Your task to perform on an android device: Open Google Chrome and open the bookmarks view Image 0: 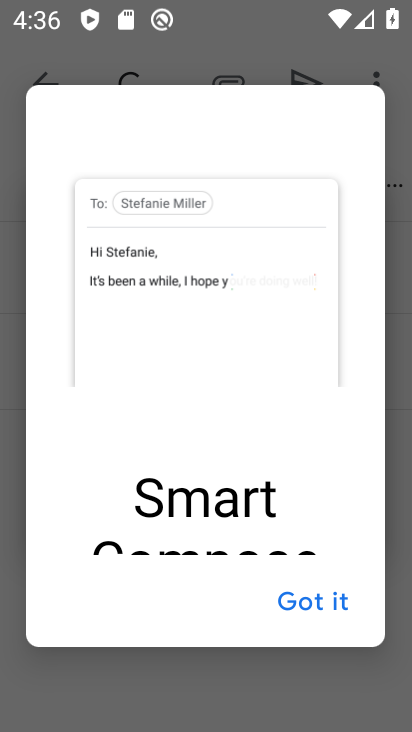
Step 0: press home button
Your task to perform on an android device: Open Google Chrome and open the bookmarks view Image 1: 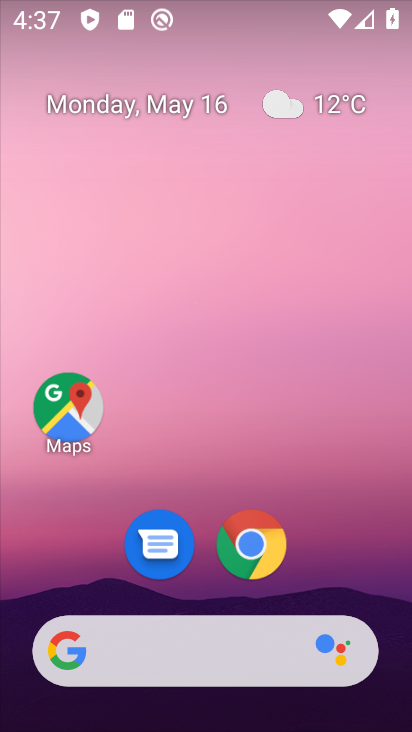
Step 1: click (257, 541)
Your task to perform on an android device: Open Google Chrome and open the bookmarks view Image 2: 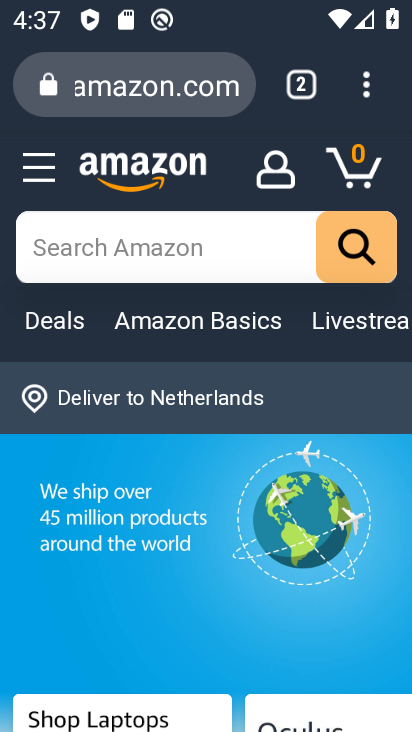
Step 2: click (365, 87)
Your task to perform on an android device: Open Google Chrome and open the bookmarks view Image 3: 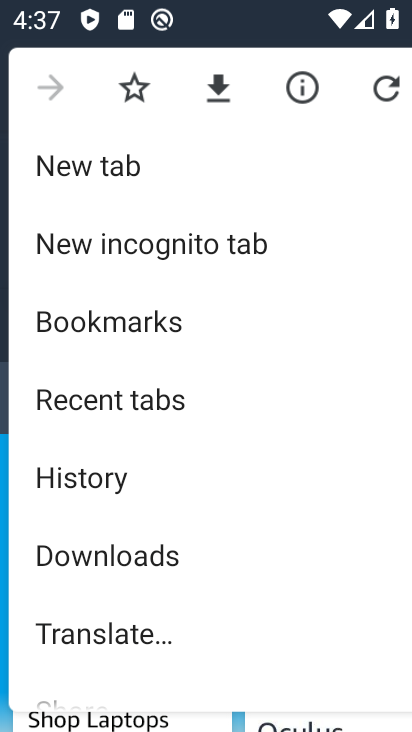
Step 3: drag from (138, 458) to (168, 383)
Your task to perform on an android device: Open Google Chrome and open the bookmarks view Image 4: 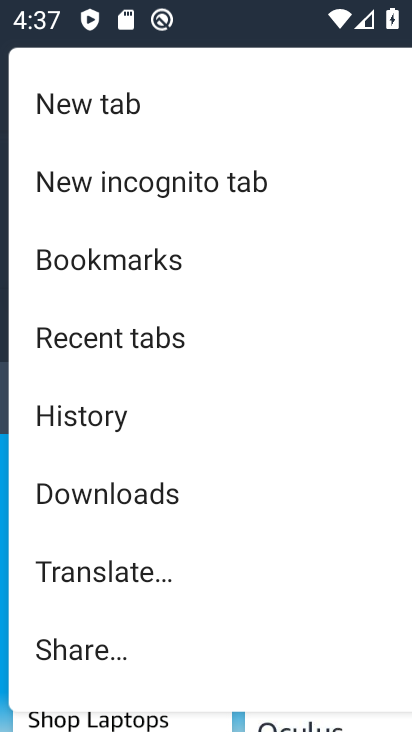
Step 4: drag from (156, 510) to (210, 408)
Your task to perform on an android device: Open Google Chrome and open the bookmarks view Image 5: 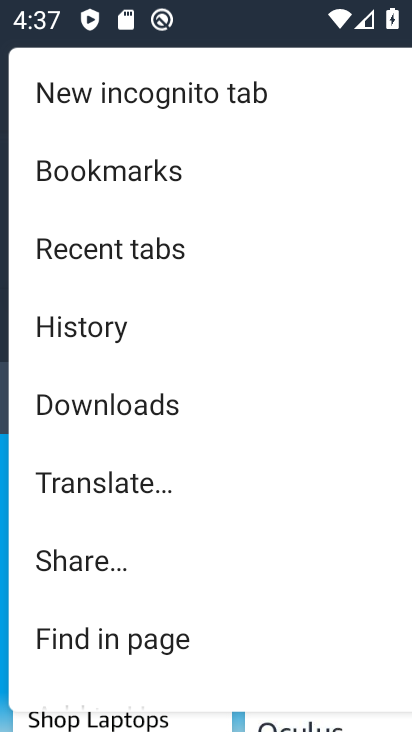
Step 5: drag from (169, 535) to (225, 434)
Your task to perform on an android device: Open Google Chrome and open the bookmarks view Image 6: 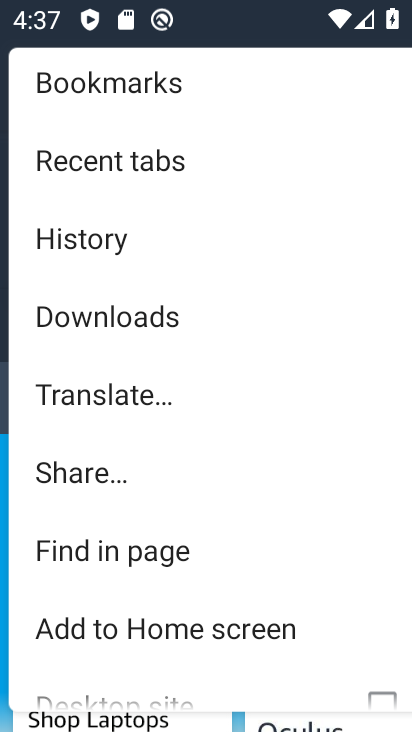
Step 6: click (134, 90)
Your task to perform on an android device: Open Google Chrome and open the bookmarks view Image 7: 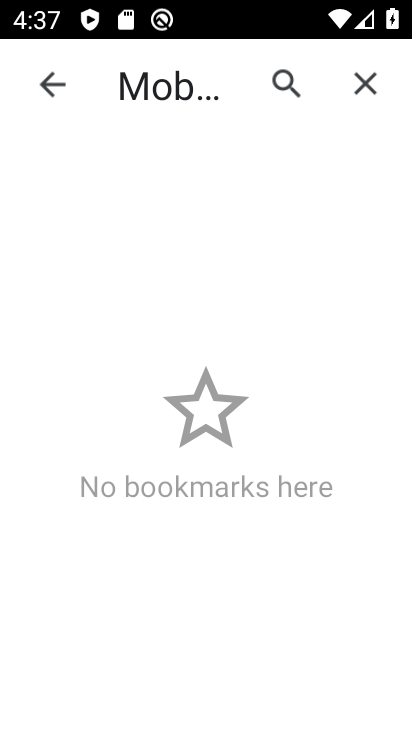
Step 7: task complete